Your task to perform on an android device: toggle wifi Image 0: 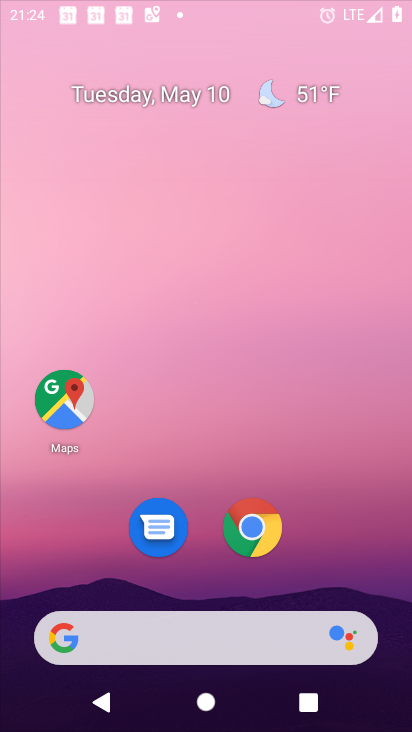
Step 0: drag from (244, 582) to (210, 60)
Your task to perform on an android device: toggle wifi Image 1: 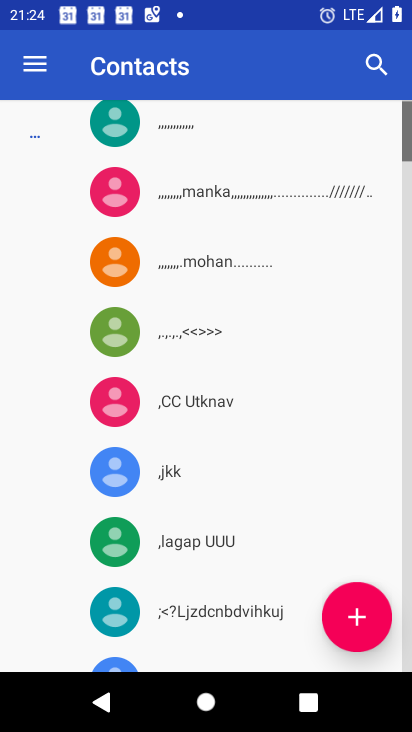
Step 1: press home button
Your task to perform on an android device: toggle wifi Image 2: 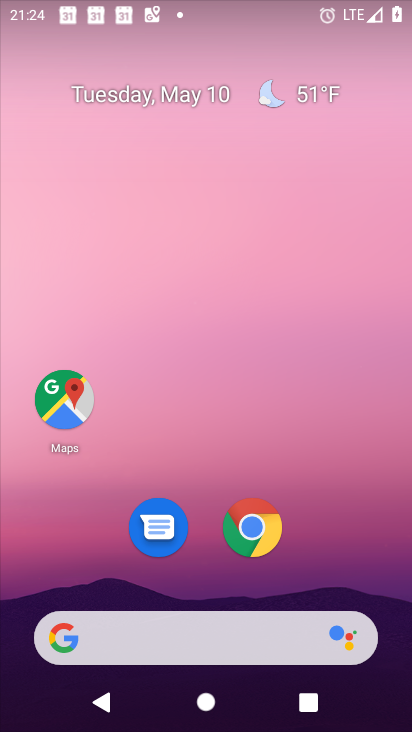
Step 2: drag from (227, 599) to (148, 39)
Your task to perform on an android device: toggle wifi Image 3: 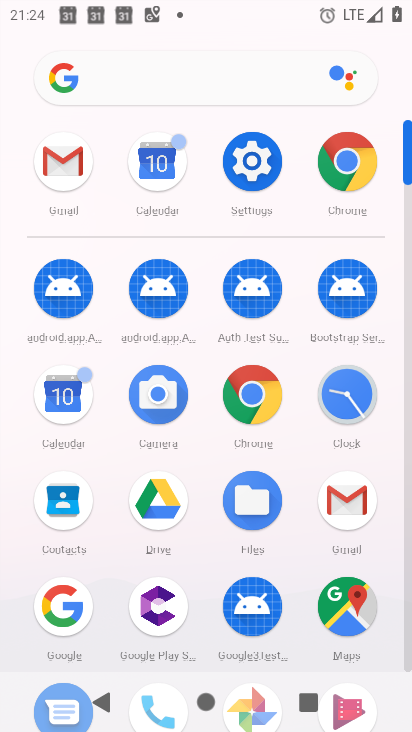
Step 3: click (233, 160)
Your task to perform on an android device: toggle wifi Image 4: 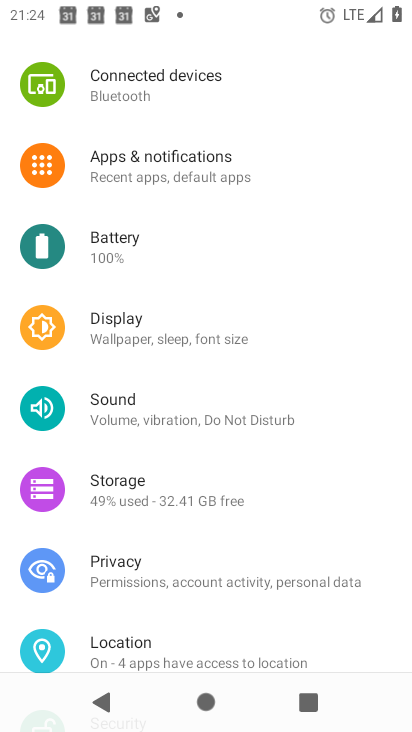
Step 4: drag from (111, 245) to (178, 694)
Your task to perform on an android device: toggle wifi Image 5: 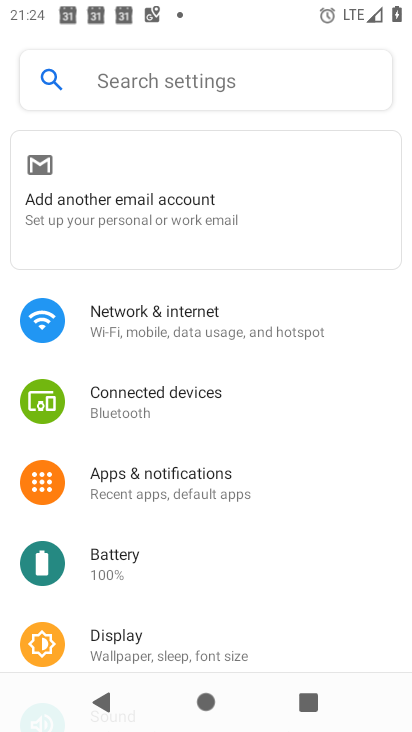
Step 5: click (184, 308)
Your task to perform on an android device: toggle wifi Image 6: 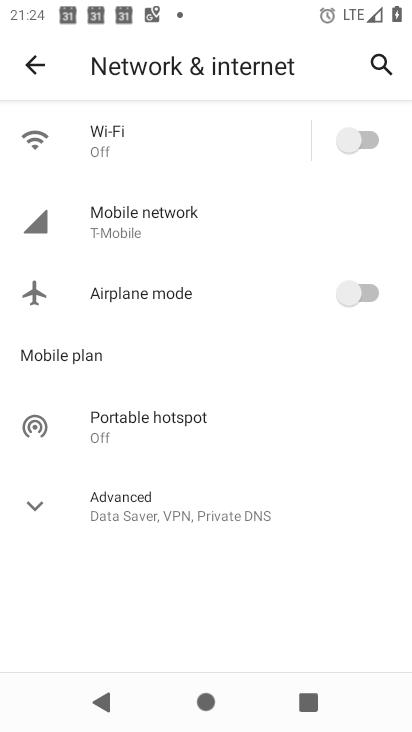
Step 6: click (352, 151)
Your task to perform on an android device: toggle wifi Image 7: 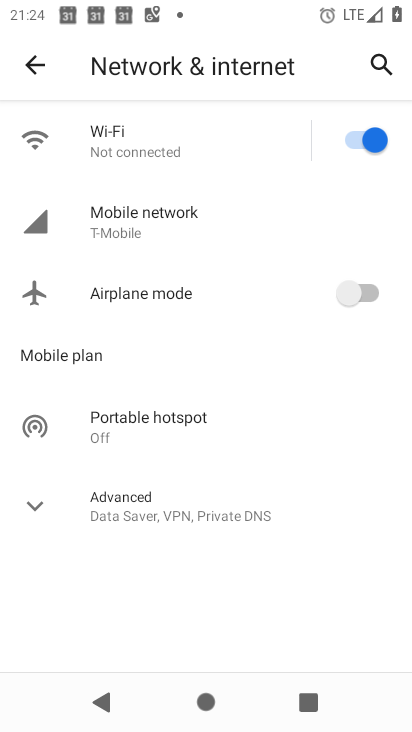
Step 7: task complete